Your task to perform on an android device: toggle show notifications on the lock screen Image 0: 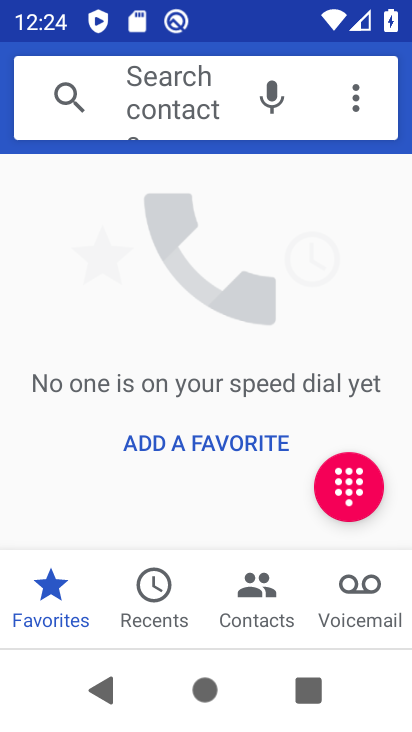
Step 0: press home button
Your task to perform on an android device: toggle show notifications on the lock screen Image 1: 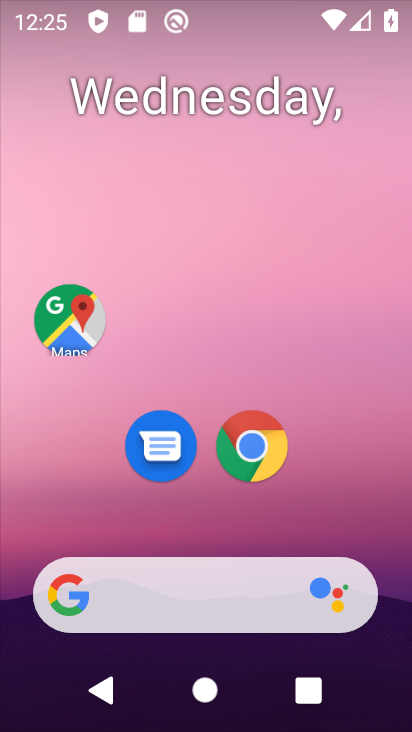
Step 1: drag from (200, 540) to (178, 64)
Your task to perform on an android device: toggle show notifications on the lock screen Image 2: 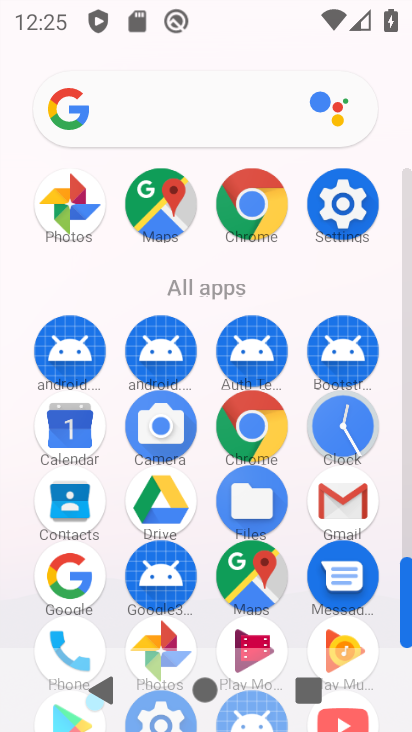
Step 2: drag from (229, 286) to (228, 13)
Your task to perform on an android device: toggle show notifications on the lock screen Image 3: 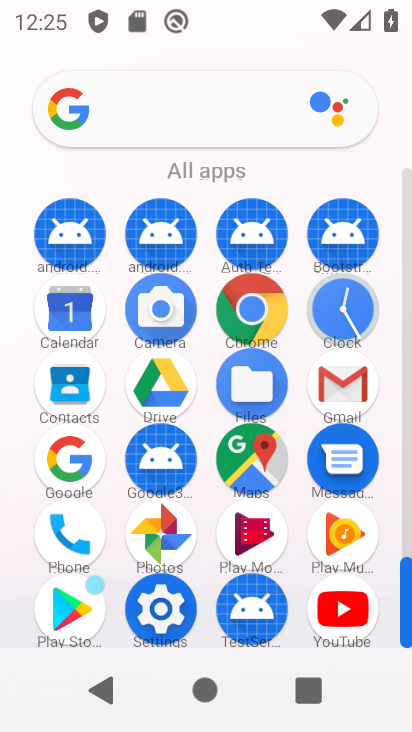
Step 3: click (172, 604)
Your task to perform on an android device: toggle show notifications on the lock screen Image 4: 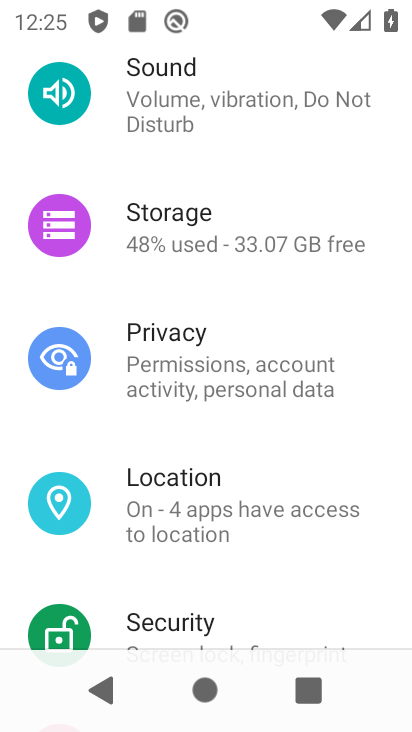
Step 4: drag from (238, 224) to (252, 528)
Your task to perform on an android device: toggle show notifications on the lock screen Image 5: 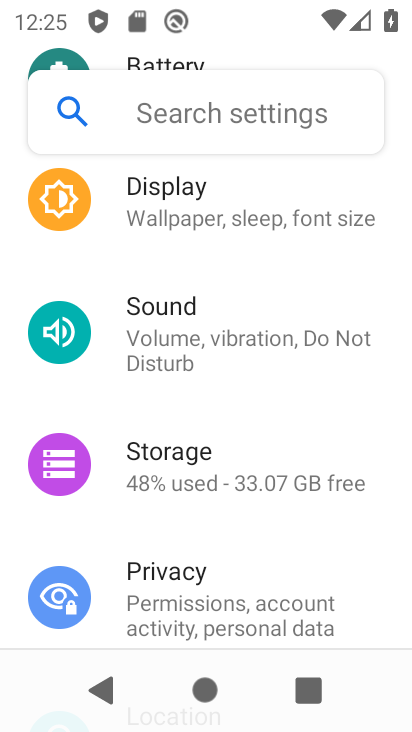
Step 5: drag from (259, 251) to (229, 651)
Your task to perform on an android device: toggle show notifications on the lock screen Image 6: 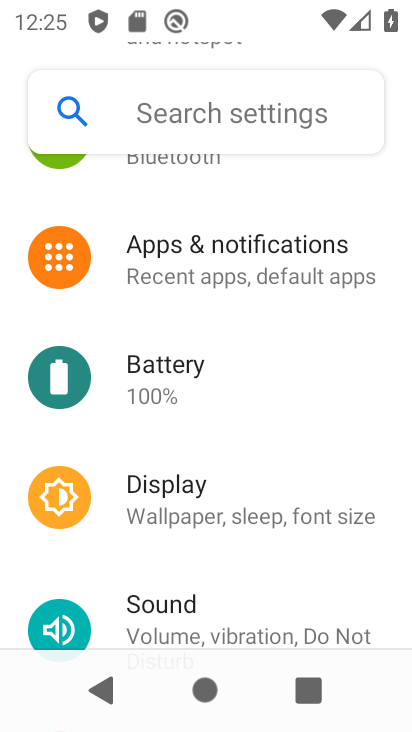
Step 6: click (249, 285)
Your task to perform on an android device: toggle show notifications on the lock screen Image 7: 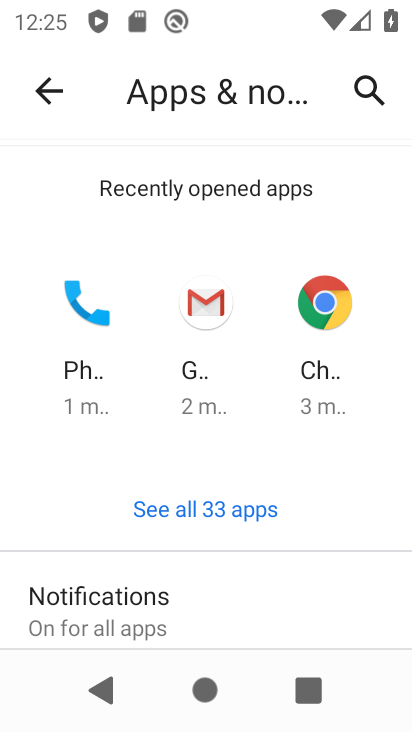
Step 7: drag from (183, 576) to (182, 305)
Your task to perform on an android device: toggle show notifications on the lock screen Image 8: 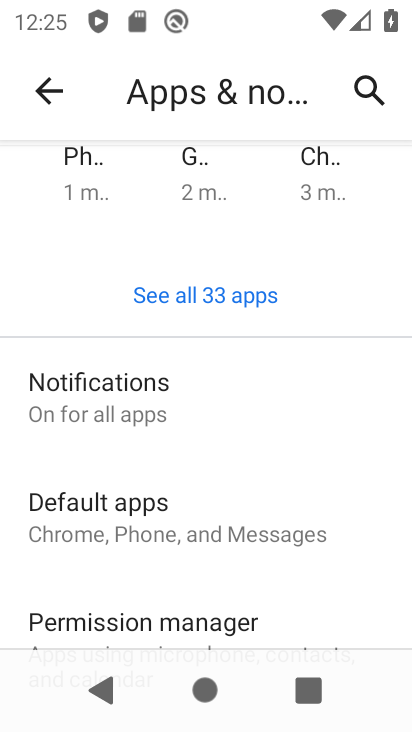
Step 8: click (151, 427)
Your task to perform on an android device: toggle show notifications on the lock screen Image 9: 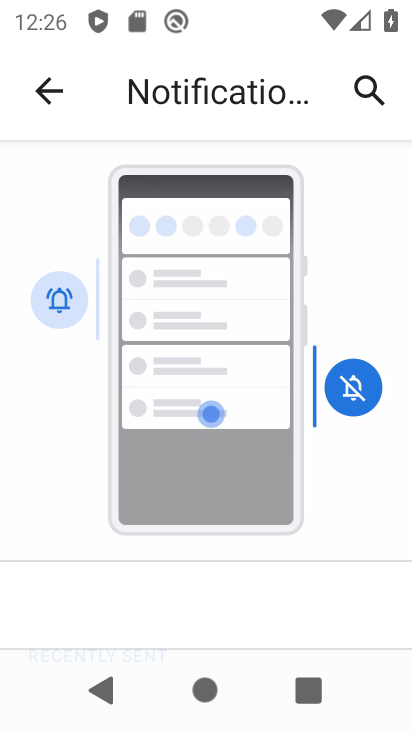
Step 9: drag from (203, 493) to (247, 61)
Your task to perform on an android device: toggle show notifications on the lock screen Image 10: 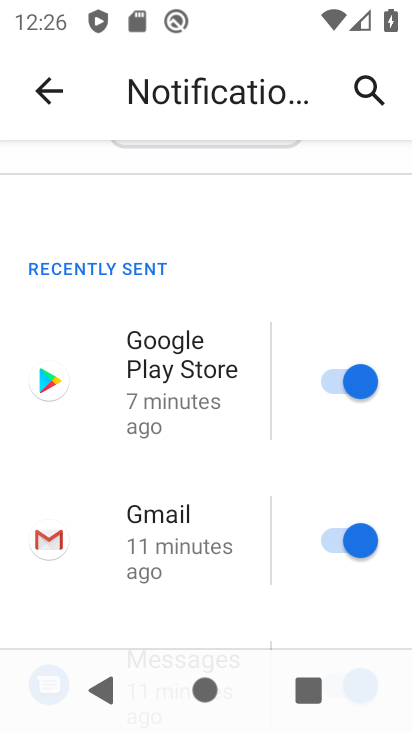
Step 10: drag from (187, 473) to (205, 67)
Your task to perform on an android device: toggle show notifications on the lock screen Image 11: 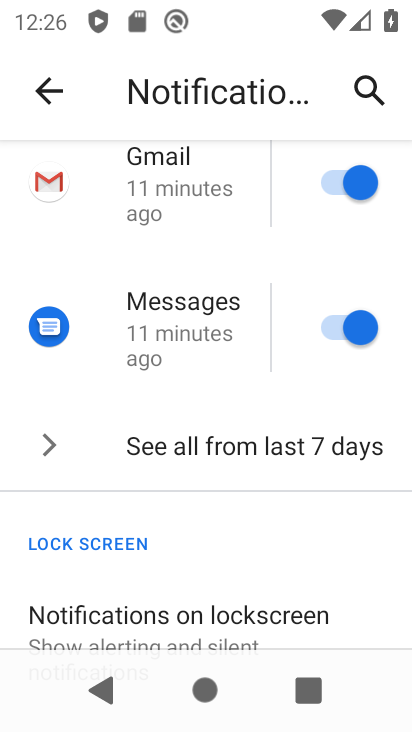
Step 11: drag from (197, 529) to (184, 224)
Your task to perform on an android device: toggle show notifications on the lock screen Image 12: 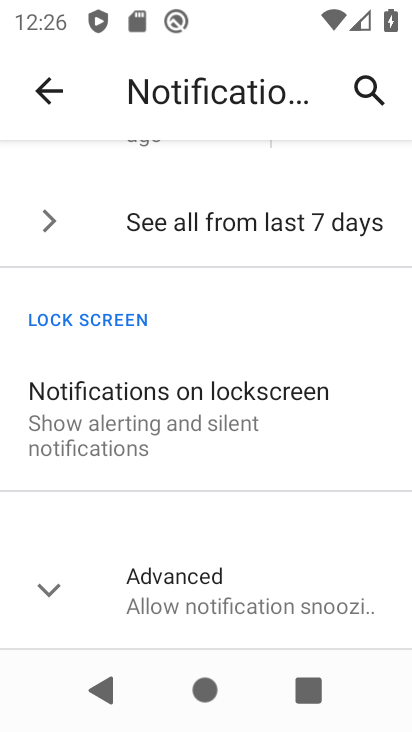
Step 12: click (172, 434)
Your task to perform on an android device: toggle show notifications on the lock screen Image 13: 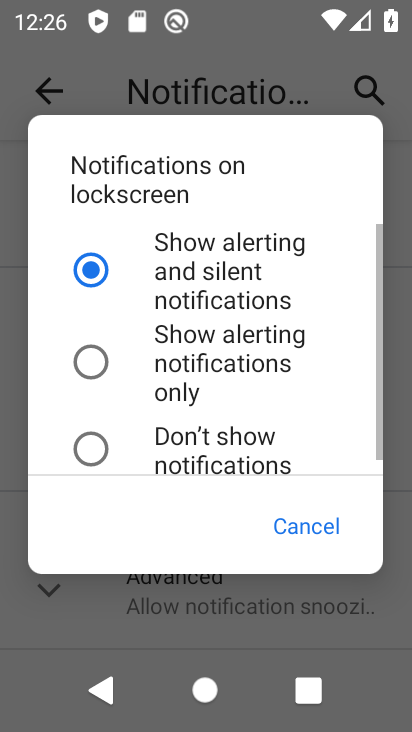
Step 13: click (107, 446)
Your task to perform on an android device: toggle show notifications on the lock screen Image 14: 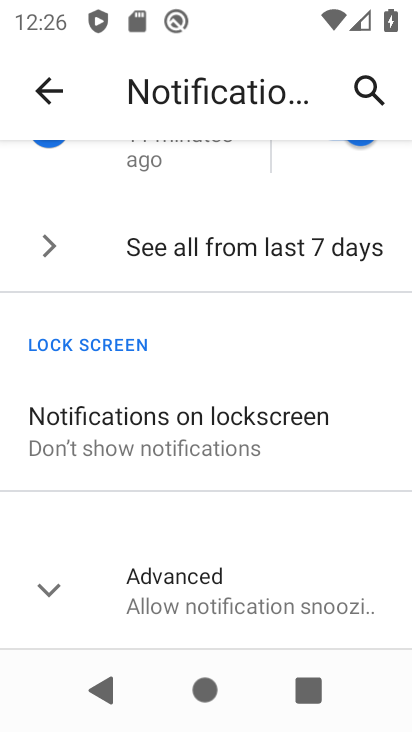
Step 14: task complete